Your task to perform on an android device: Open calendar and show me the third week of next month Image 0: 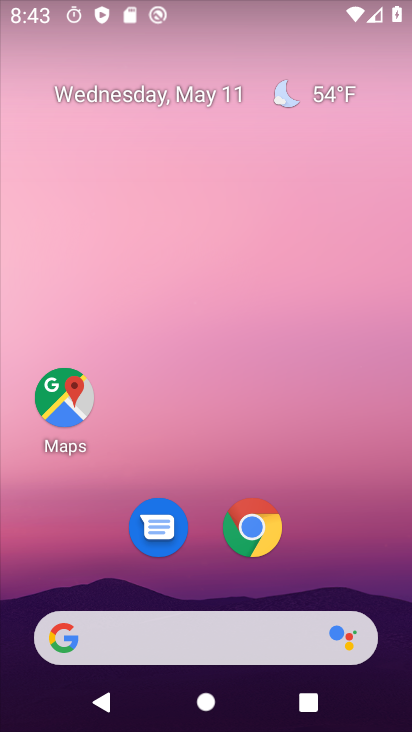
Step 0: drag from (192, 569) to (179, 48)
Your task to perform on an android device: Open calendar and show me the third week of next month Image 1: 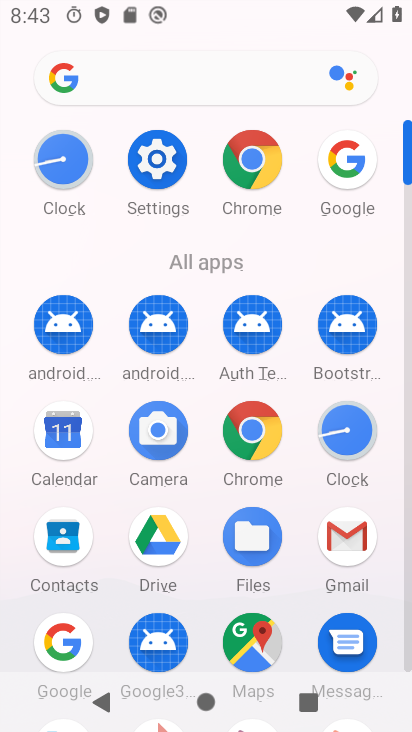
Step 1: click (68, 430)
Your task to perform on an android device: Open calendar and show me the third week of next month Image 2: 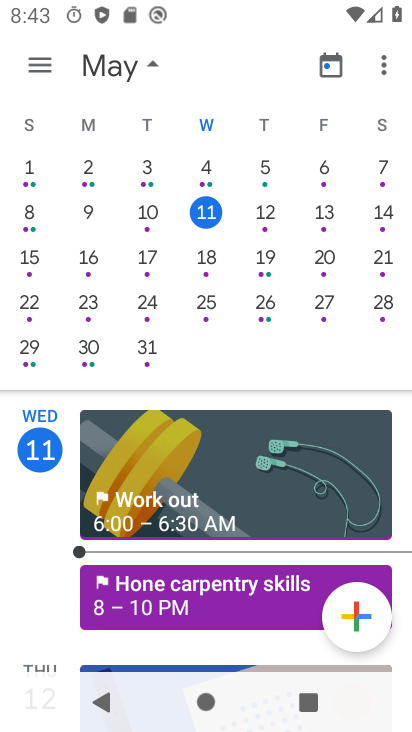
Step 2: drag from (362, 355) to (12, 312)
Your task to perform on an android device: Open calendar and show me the third week of next month Image 3: 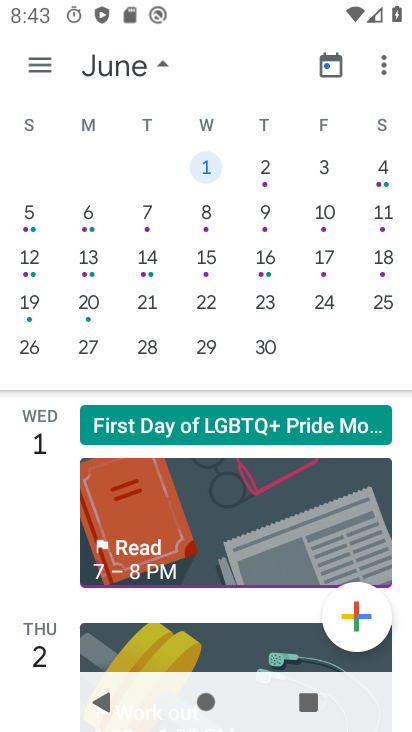
Step 3: click (211, 251)
Your task to perform on an android device: Open calendar and show me the third week of next month Image 4: 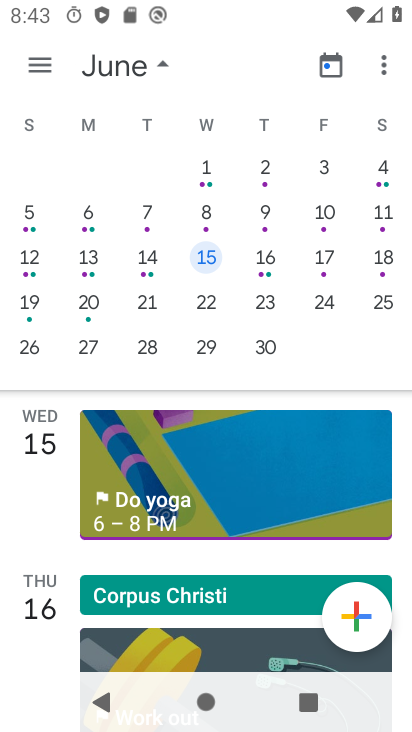
Step 4: task complete